Your task to perform on an android device: Go to wifi settings Image 0: 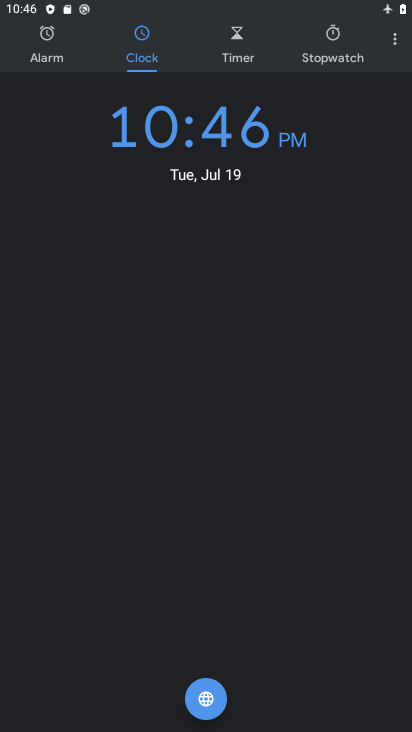
Step 0: press home button
Your task to perform on an android device: Go to wifi settings Image 1: 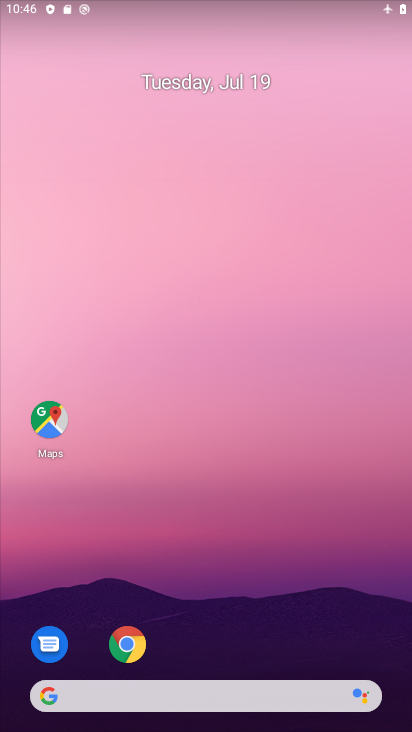
Step 1: drag from (239, 560) to (212, 16)
Your task to perform on an android device: Go to wifi settings Image 2: 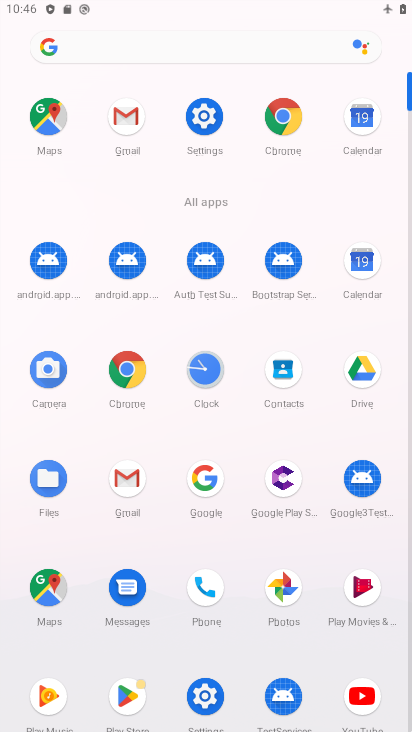
Step 2: click (200, 119)
Your task to perform on an android device: Go to wifi settings Image 3: 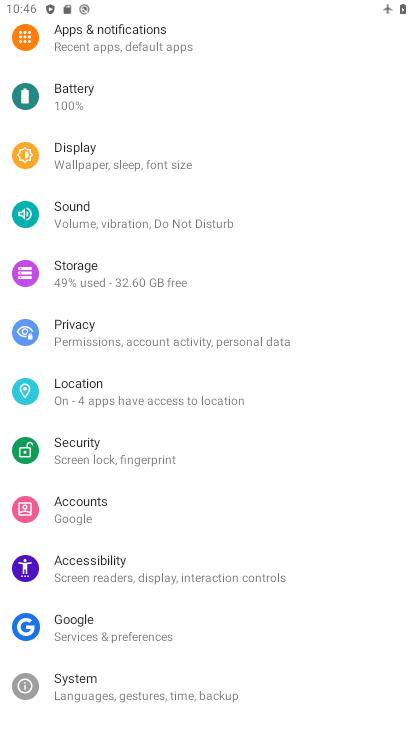
Step 3: drag from (242, 120) to (224, 445)
Your task to perform on an android device: Go to wifi settings Image 4: 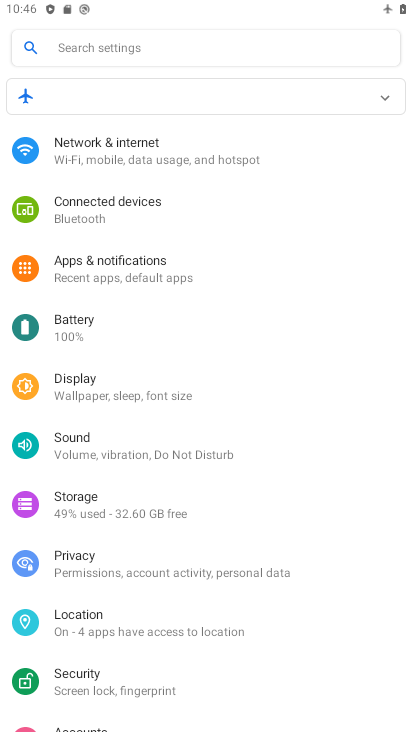
Step 4: click (124, 145)
Your task to perform on an android device: Go to wifi settings Image 5: 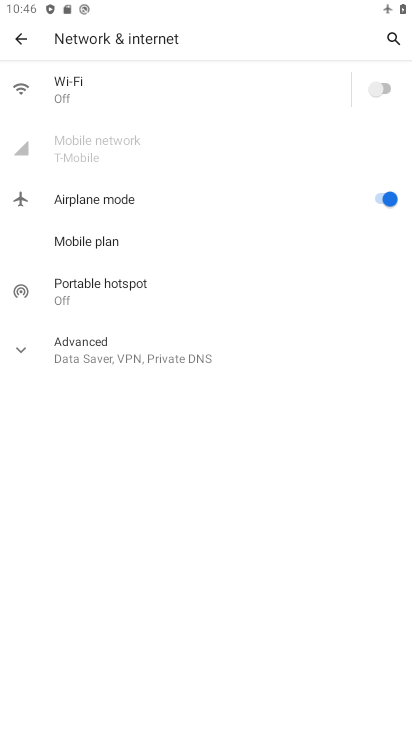
Step 5: click (154, 82)
Your task to perform on an android device: Go to wifi settings Image 6: 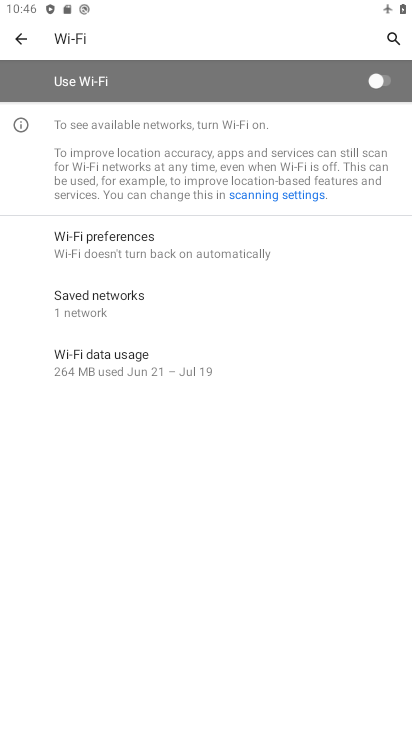
Step 6: task complete